Your task to perform on an android device: Open Google Image 0: 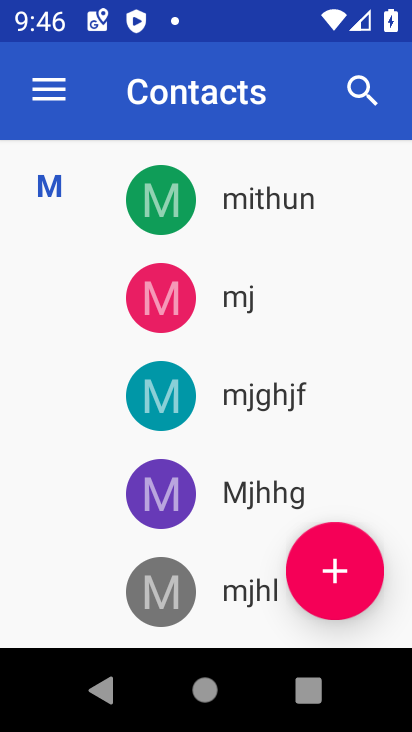
Step 0: press home button
Your task to perform on an android device: Open Google Image 1: 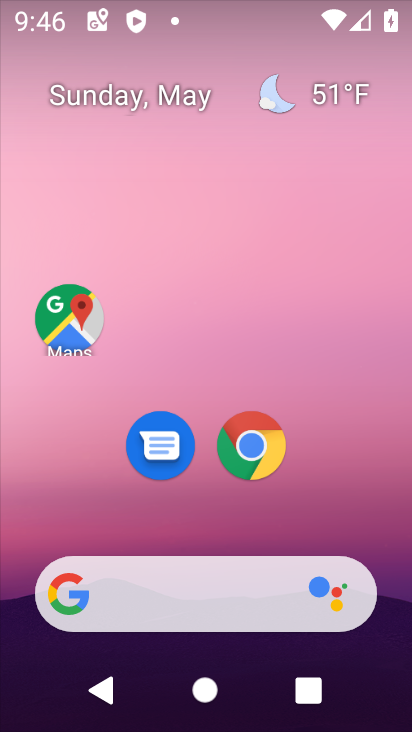
Step 1: click (117, 589)
Your task to perform on an android device: Open Google Image 2: 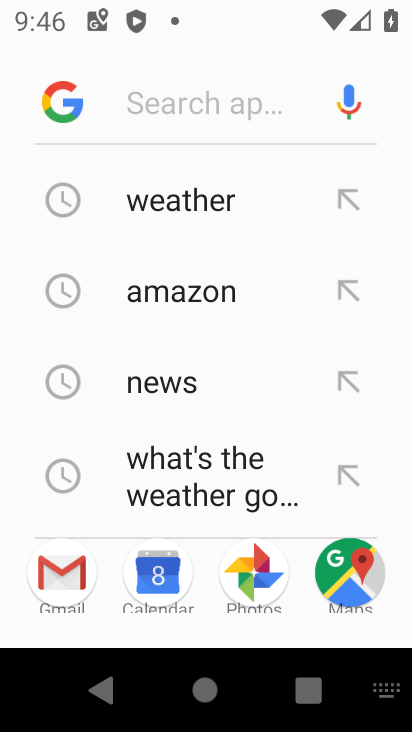
Step 2: click (64, 110)
Your task to perform on an android device: Open Google Image 3: 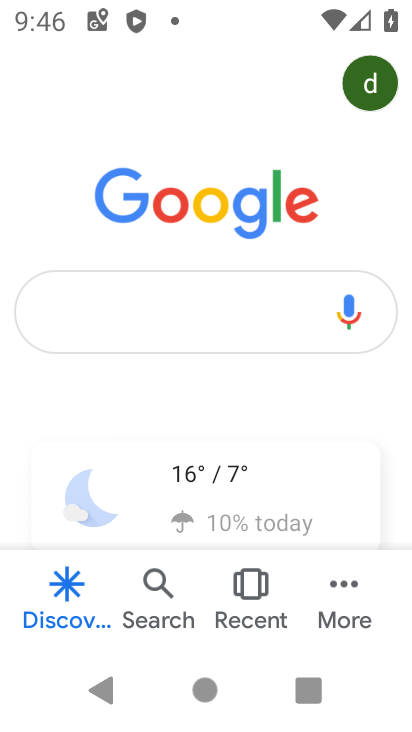
Step 3: task complete